Your task to perform on an android device: Add "asus rog" to the cart on ebay.com, then select checkout. Image 0: 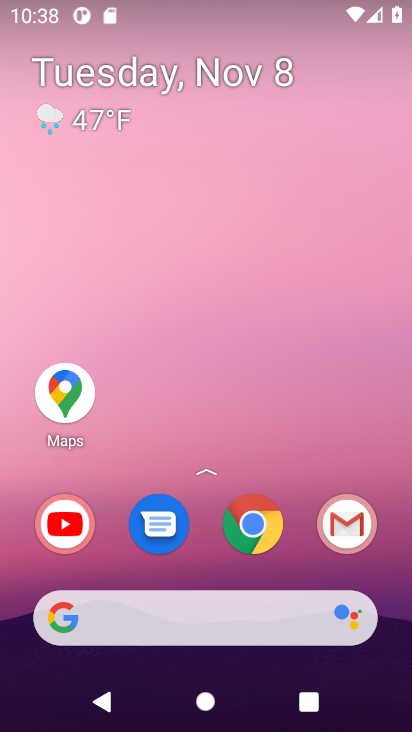
Step 0: click (254, 539)
Your task to perform on an android device: Add "asus rog" to the cart on ebay.com, then select checkout. Image 1: 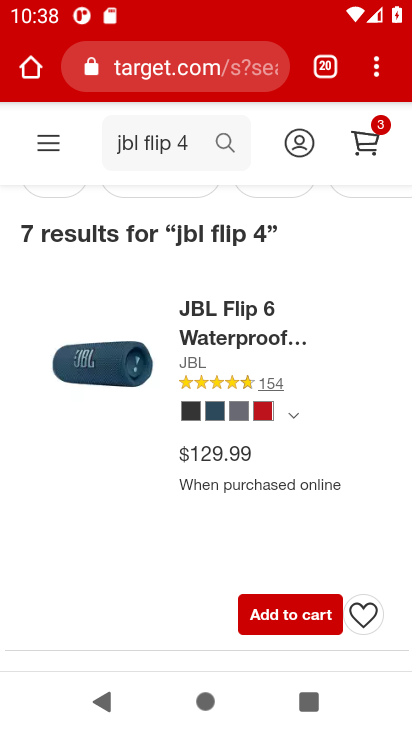
Step 1: click (206, 69)
Your task to perform on an android device: Add "asus rog" to the cart on ebay.com, then select checkout. Image 2: 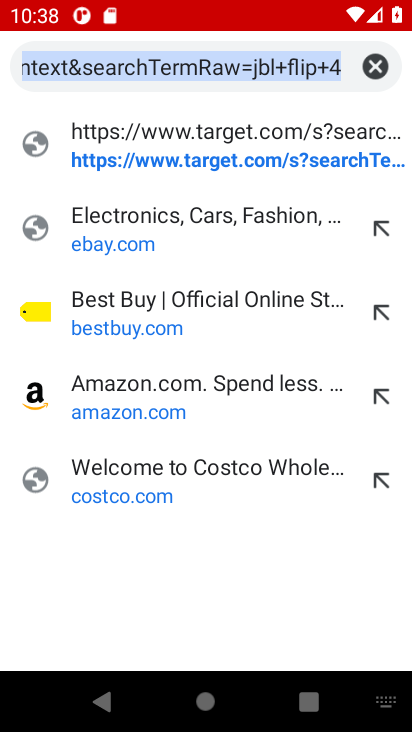
Step 2: click (130, 236)
Your task to perform on an android device: Add "asus rog" to the cart on ebay.com, then select checkout. Image 3: 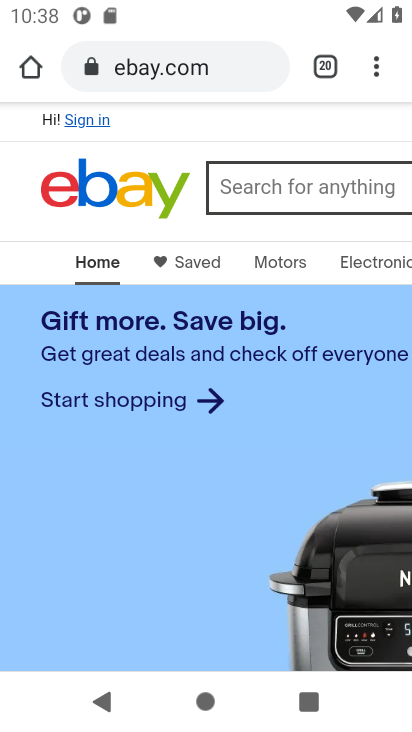
Step 3: click (260, 190)
Your task to perform on an android device: Add "asus rog" to the cart on ebay.com, then select checkout. Image 4: 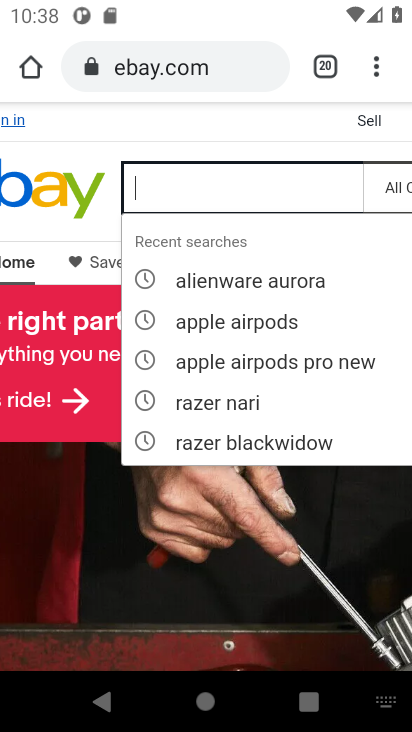
Step 4: type "asus rog"
Your task to perform on an android device: Add "asus rog" to the cart on ebay.com, then select checkout. Image 5: 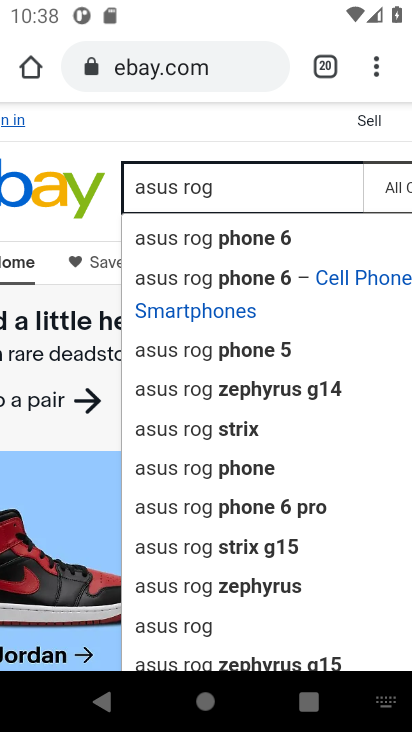
Step 5: click (189, 642)
Your task to perform on an android device: Add "asus rog" to the cart on ebay.com, then select checkout. Image 6: 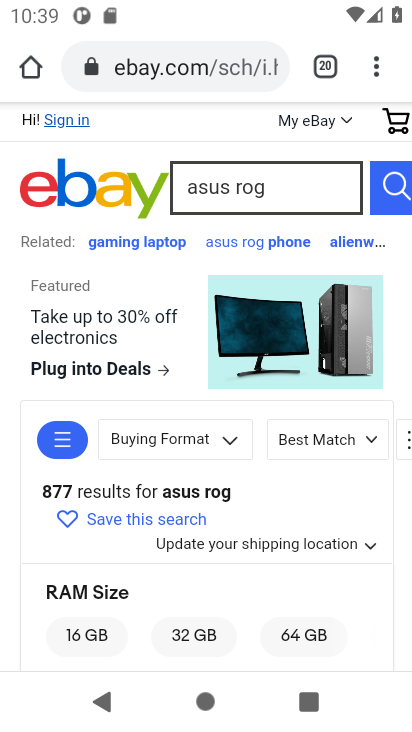
Step 6: drag from (191, 578) to (195, 248)
Your task to perform on an android device: Add "asus rog" to the cart on ebay.com, then select checkout. Image 7: 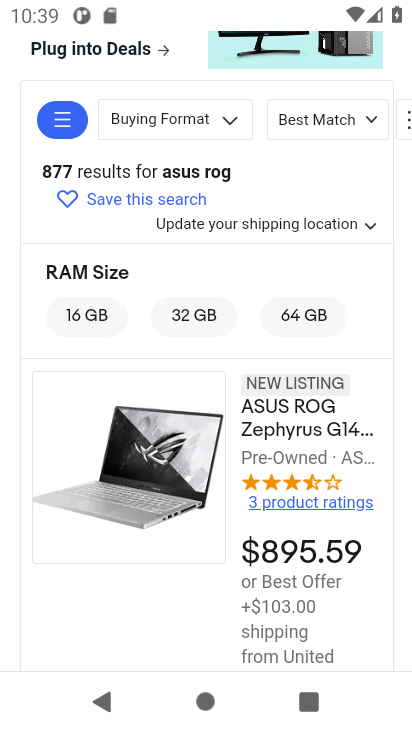
Step 7: click (168, 487)
Your task to perform on an android device: Add "asus rog" to the cart on ebay.com, then select checkout. Image 8: 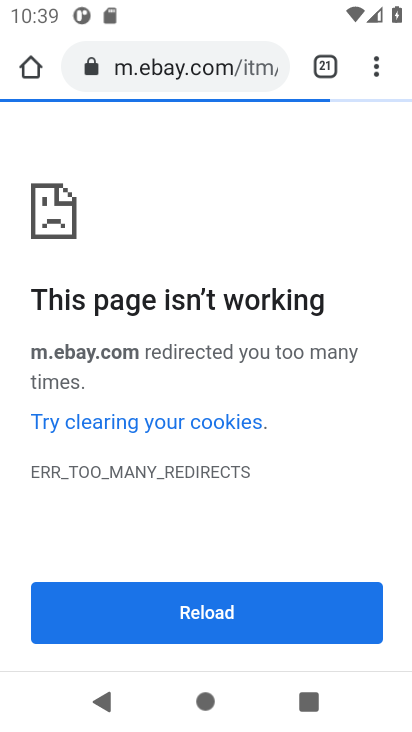
Step 8: task complete